Your task to perform on an android device: Open maps Image 0: 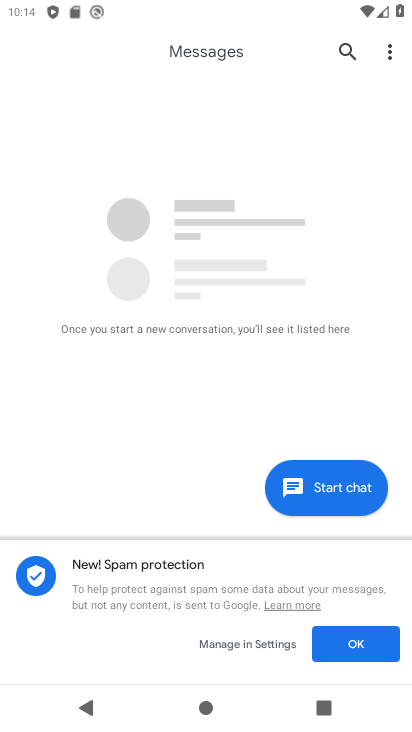
Step 0: press home button
Your task to perform on an android device: Open maps Image 1: 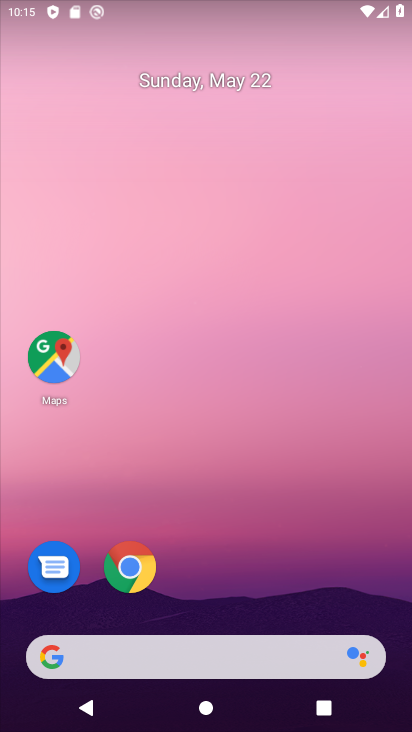
Step 1: click (56, 353)
Your task to perform on an android device: Open maps Image 2: 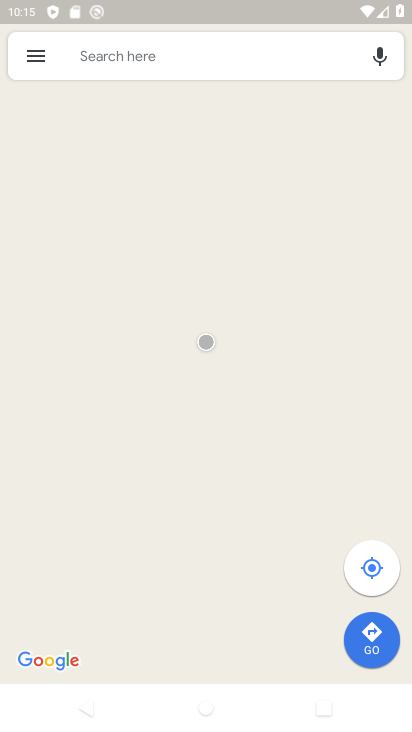
Step 2: task complete